Your task to perform on an android device: turn smart compose on in the gmail app Image 0: 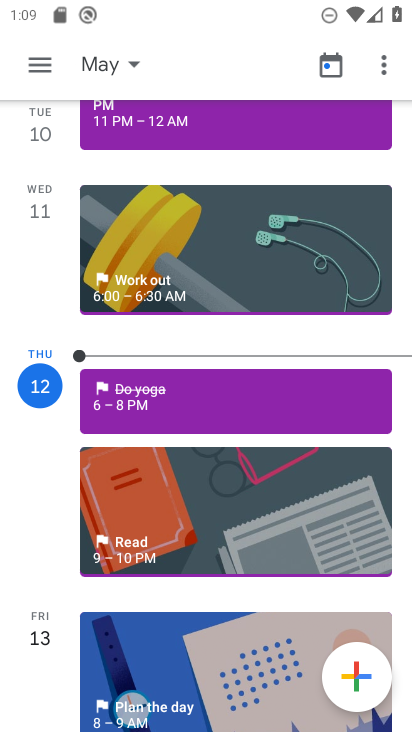
Step 0: press back button
Your task to perform on an android device: turn smart compose on in the gmail app Image 1: 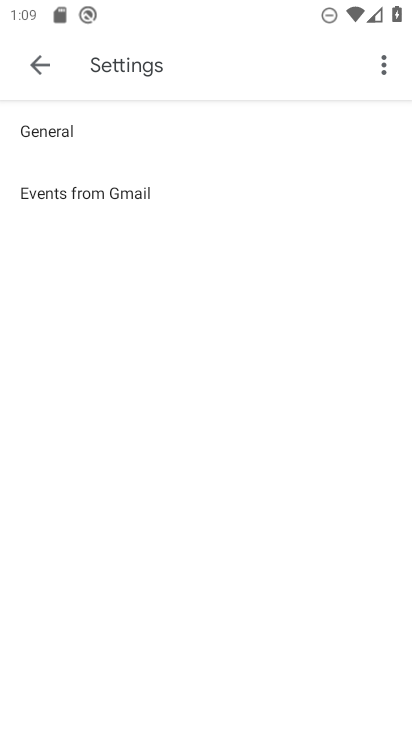
Step 1: press back button
Your task to perform on an android device: turn smart compose on in the gmail app Image 2: 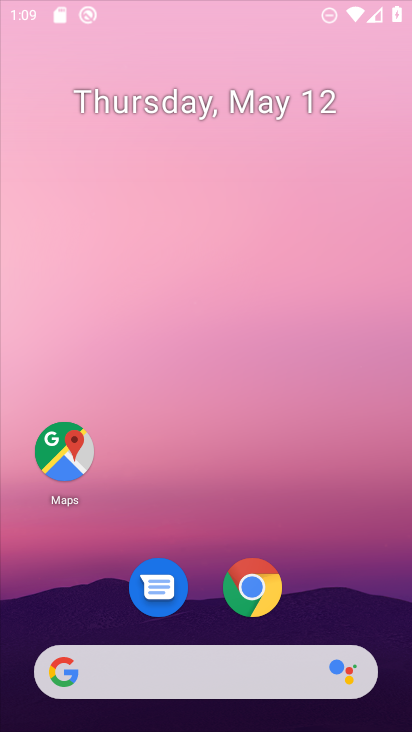
Step 2: press back button
Your task to perform on an android device: turn smart compose on in the gmail app Image 3: 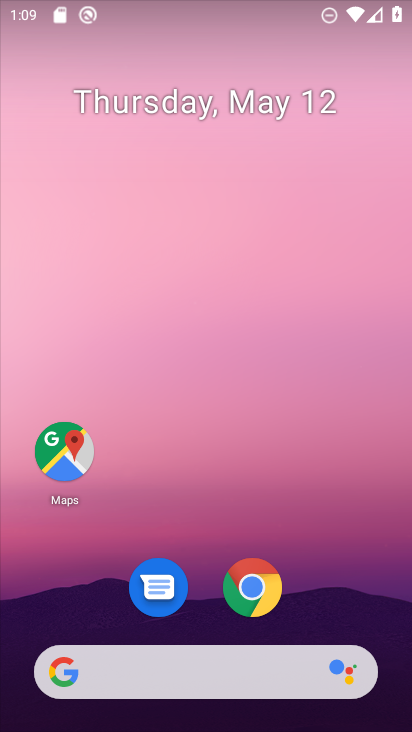
Step 3: drag from (336, 593) to (235, 97)
Your task to perform on an android device: turn smart compose on in the gmail app Image 4: 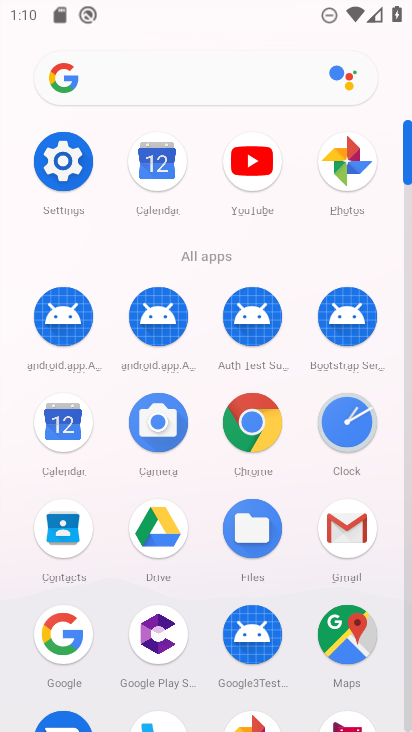
Step 4: click (348, 528)
Your task to perform on an android device: turn smart compose on in the gmail app Image 5: 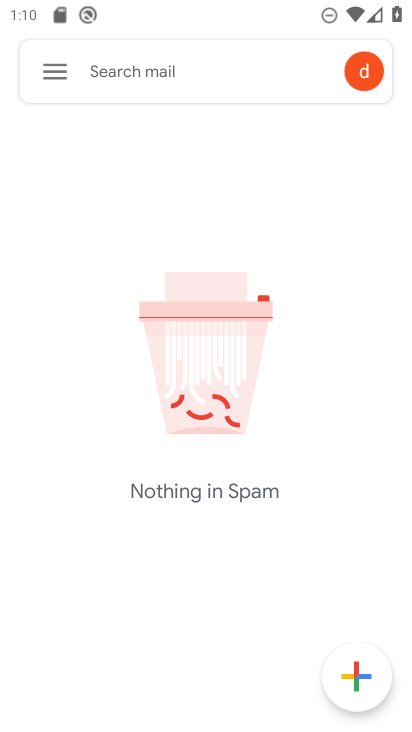
Step 5: click (55, 72)
Your task to perform on an android device: turn smart compose on in the gmail app Image 6: 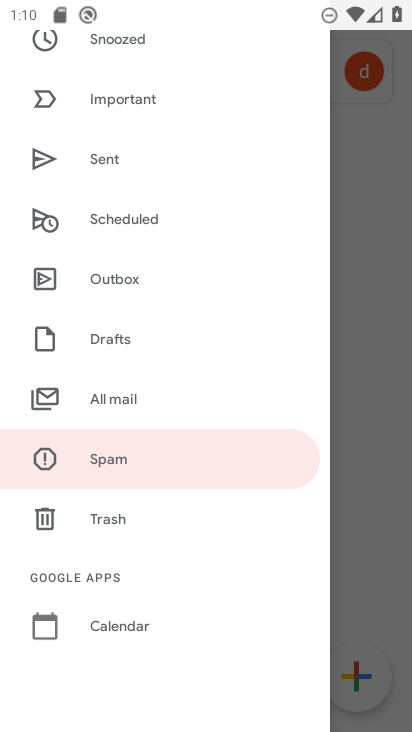
Step 6: drag from (175, 538) to (198, 330)
Your task to perform on an android device: turn smart compose on in the gmail app Image 7: 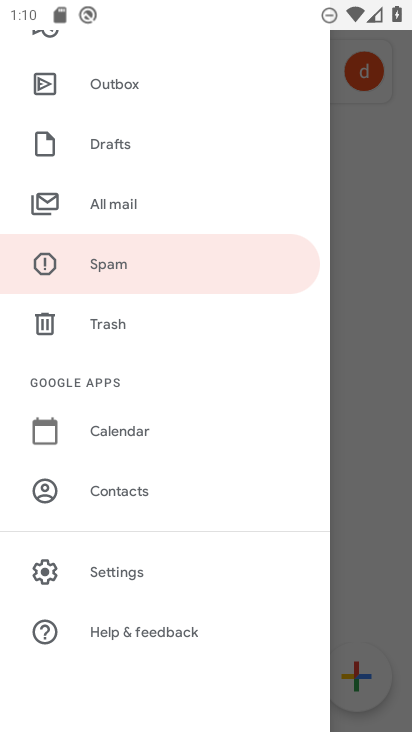
Step 7: click (131, 571)
Your task to perform on an android device: turn smart compose on in the gmail app Image 8: 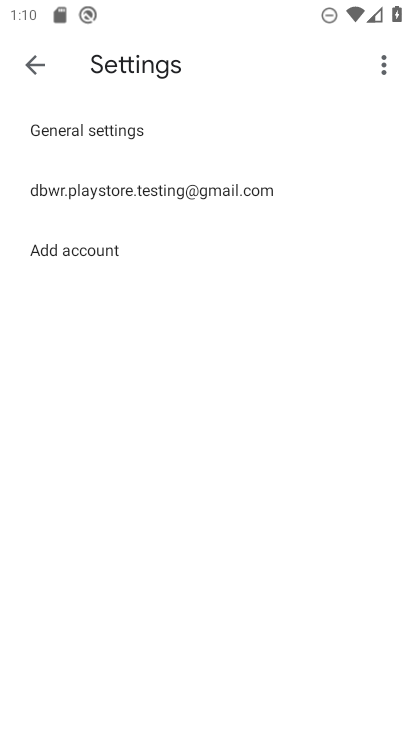
Step 8: click (145, 190)
Your task to perform on an android device: turn smart compose on in the gmail app Image 9: 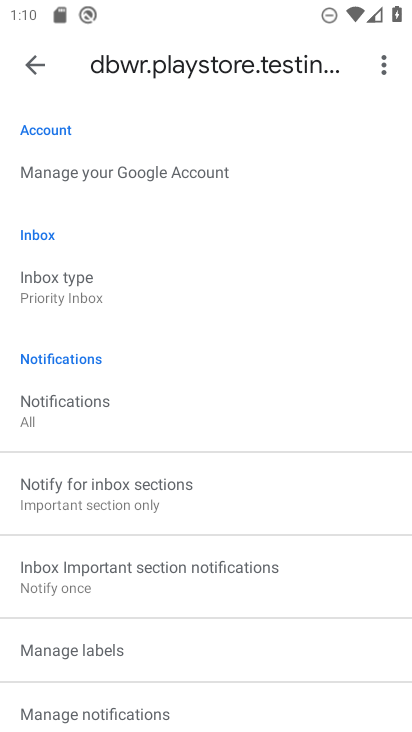
Step 9: task complete